Your task to perform on an android device: Search for vegetarian restaurants on Maps Image 0: 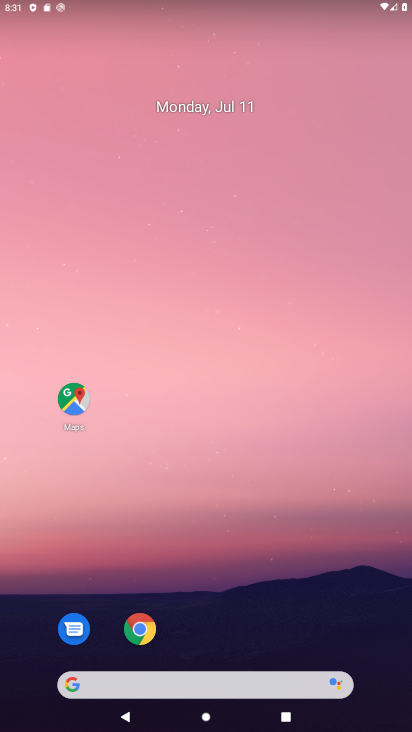
Step 0: click (84, 389)
Your task to perform on an android device: Search for vegetarian restaurants on Maps Image 1: 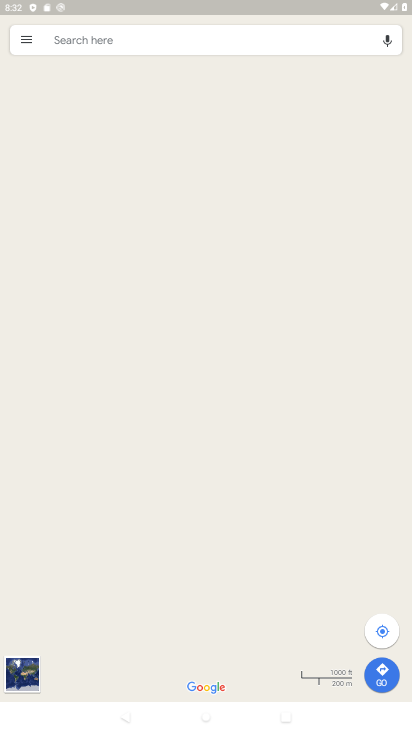
Step 1: click (117, 30)
Your task to perform on an android device: Search for vegetarian restaurants on Maps Image 2: 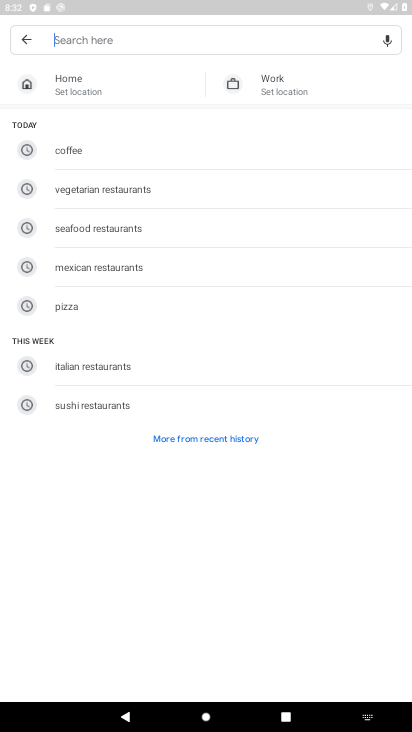
Step 2: type "vegetarian restaurants "
Your task to perform on an android device: Search for vegetarian restaurants on Maps Image 3: 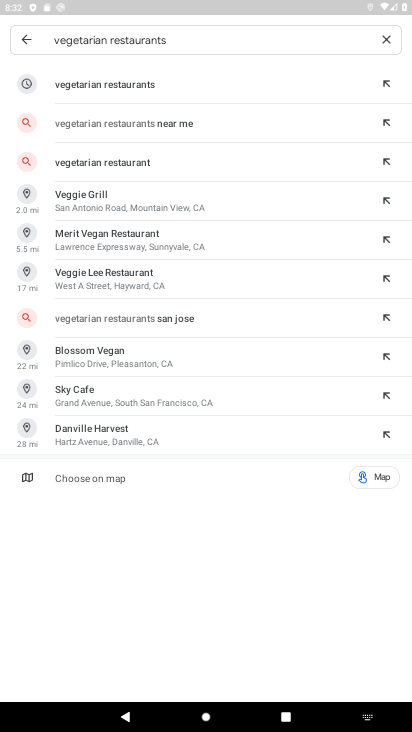
Step 3: click (135, 154)
Your task to perform on an android device: Search for vegetarian restaurants on Maps Image 4: 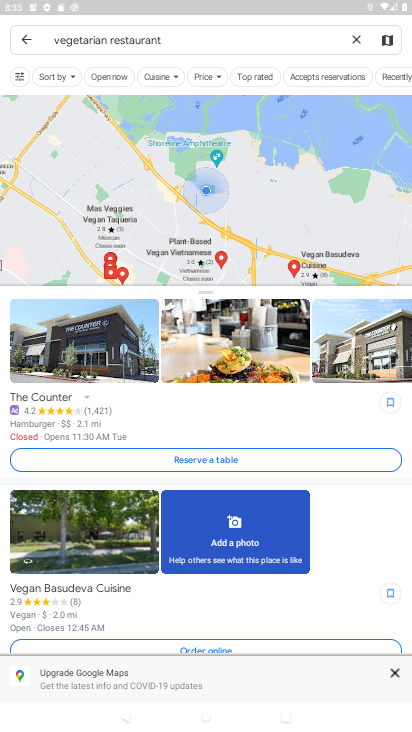
Step 4: task complete